Your task to perform on an android device: Is it going to rain today? Image 0: 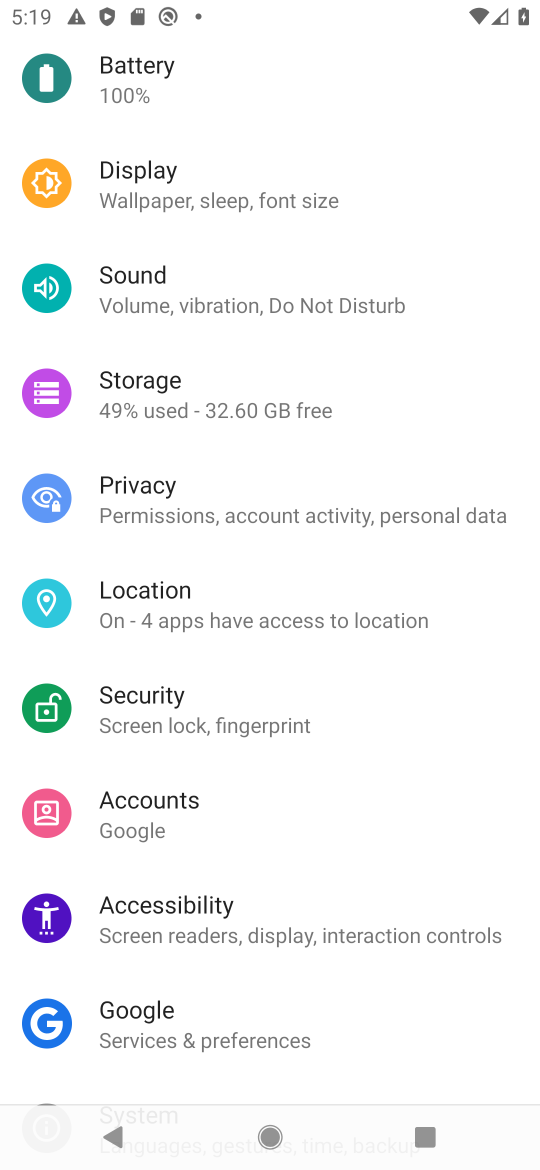
Step 0: press home button
Your task to perform on an android device: Is it going to rain today? Image 1: 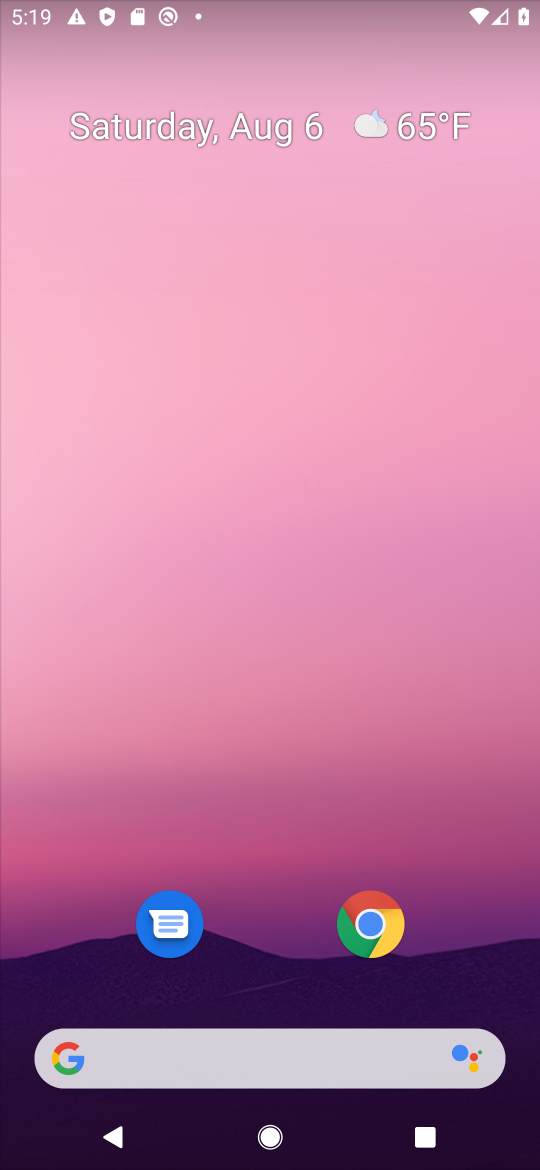
Step 1: click (261, 1059)
Your task to perform on an android device: Is it going to rain today? Image 2: 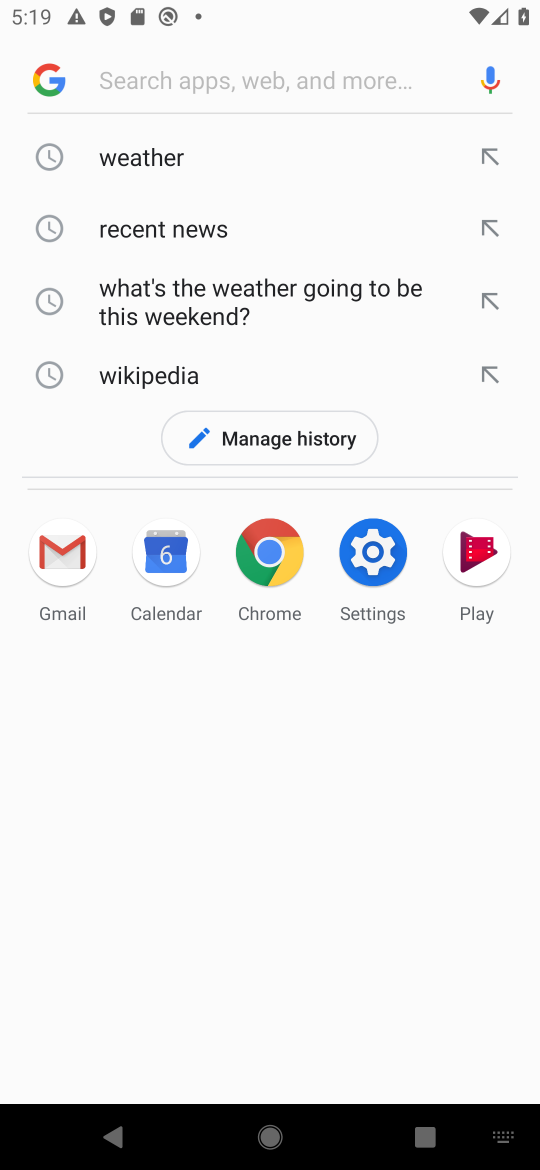
Step 2: type "Is it going to rain today?"
Your task to perform on an android device: Is it going to rain today? Image 3: 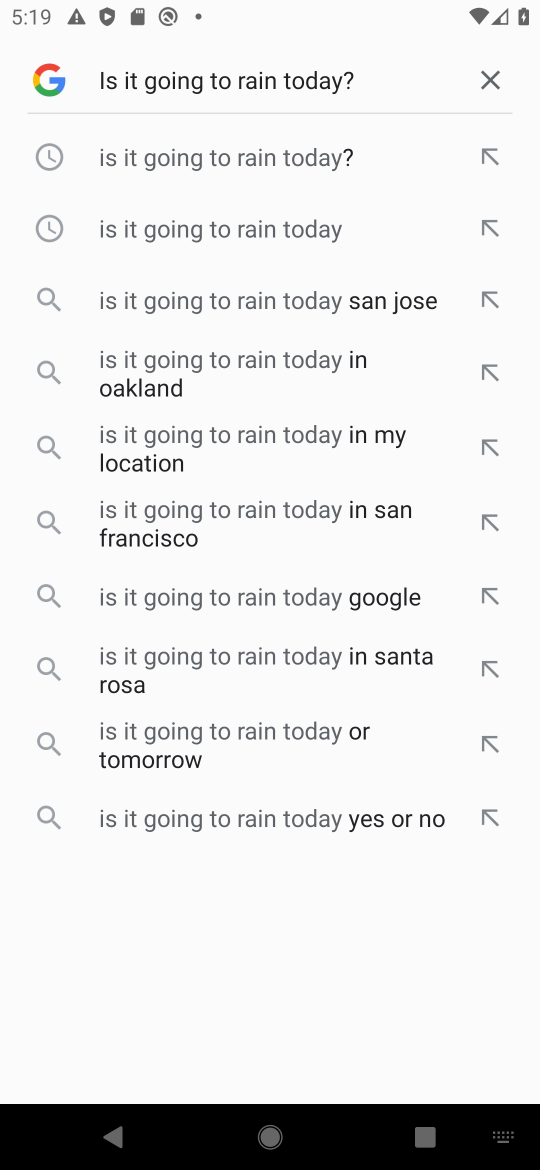
Step 3: click (347, 71)
Your task to perform on an android device: Is it going to rain today? Image 4: 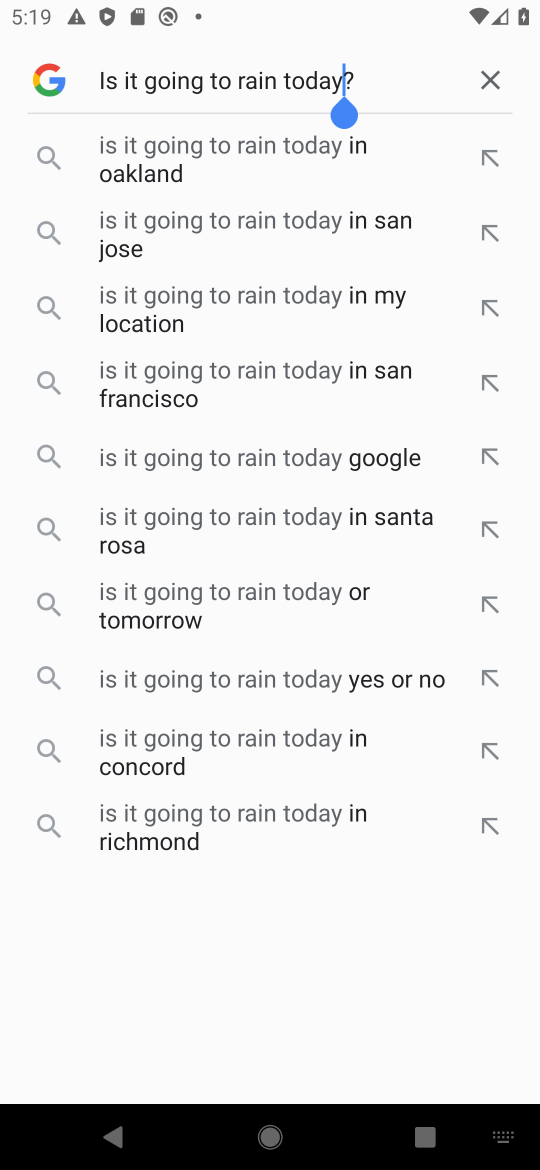
Step 4: press enter
Your task to perform on an android device: Is it going to rain today? Image 5: 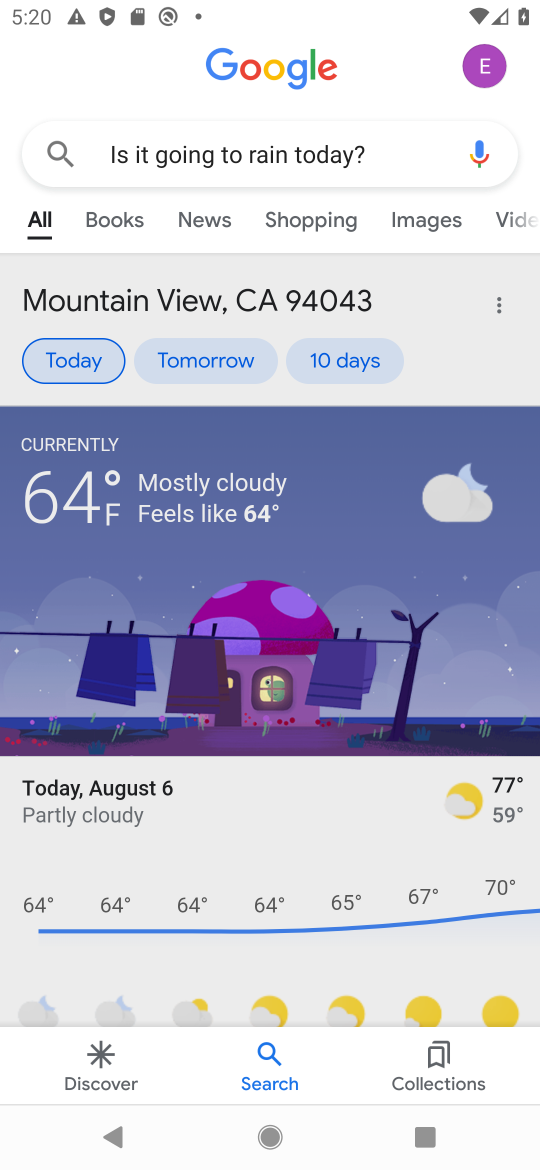
Step 5: task complete